Your task to perform on an android device: visit the assistant section in the google photos Image 0: 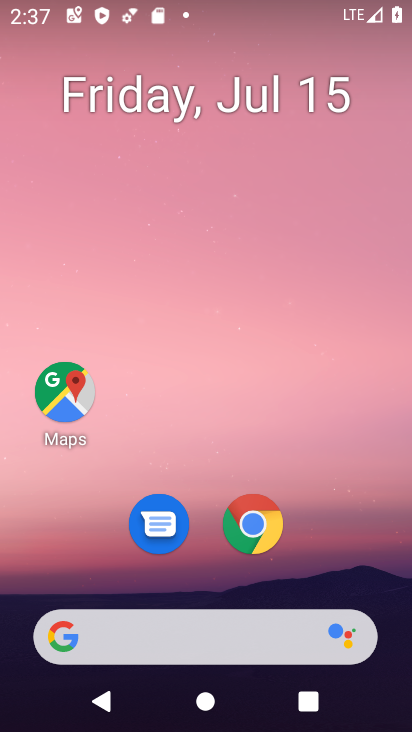
Step 0: drag from (285, 639) to (382, 36)
Your task to perform on an android device: visit the assistant section in the google photos Image 1: 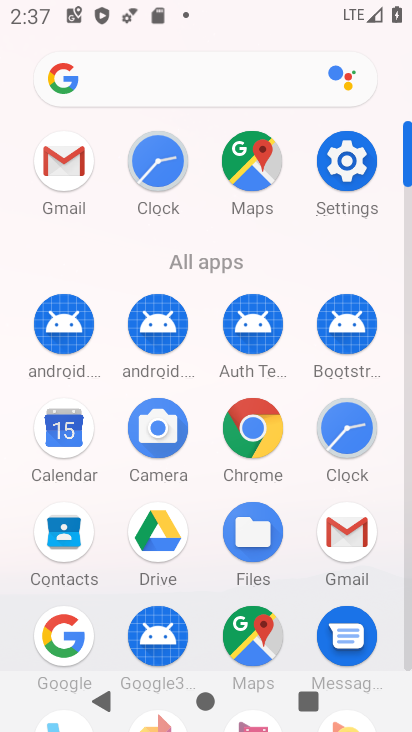
Step 1: drag from (207, 571) to (321, 110)
Your task to perform on an android device: visit the assistant section in the google photos Image 2: 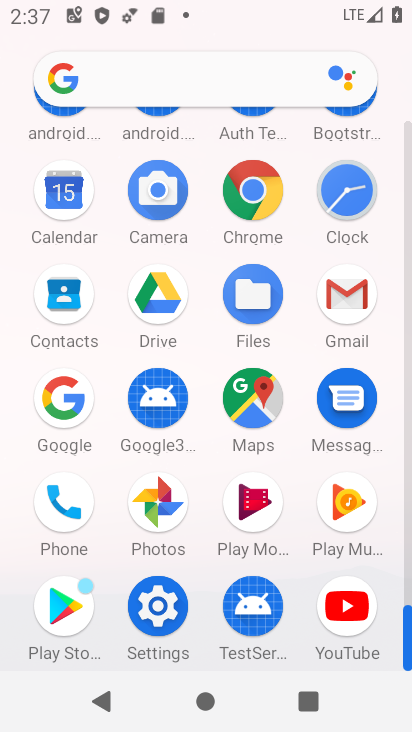
Step 2: click (160, 502)
Your task to perform on an android device: visit the assistant section in the google photos Image 3: 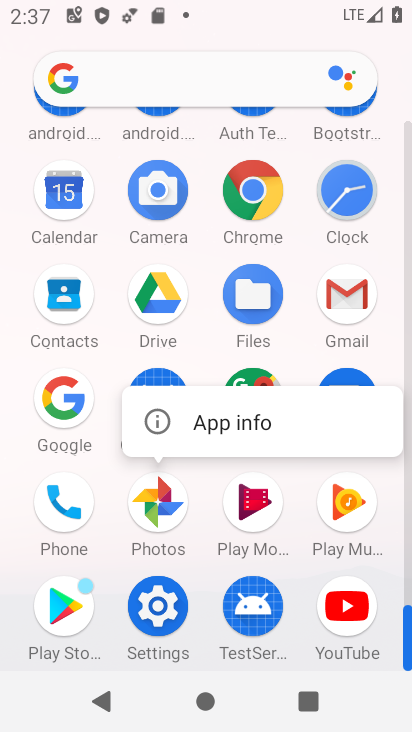
Step 3: click (158, 506)
Your task to perform on an android device: visit the assistant section in the google photos Image 4: 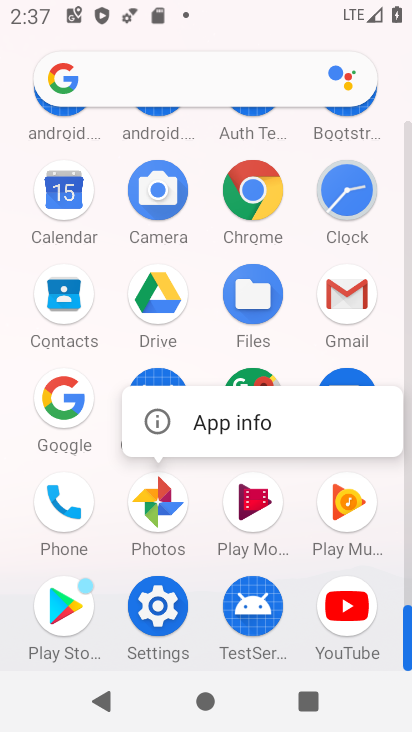
Step 4: click (158, 506)
Your task to perform on an android device: visit the assistant section in the google photos Image 5: 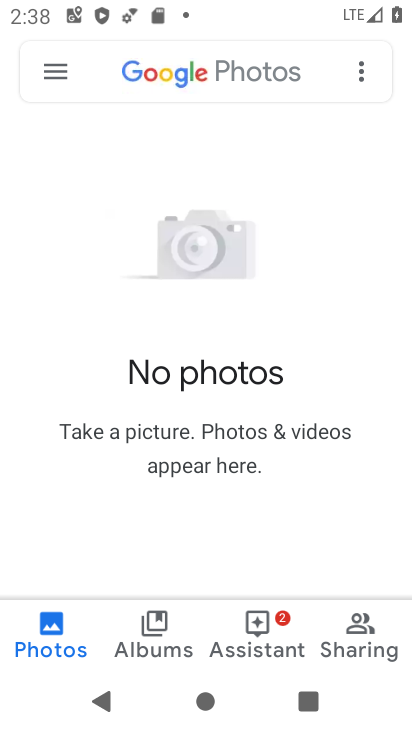
Step 5: click (264, 651)
Your task to perform on an android device: visit the assistant section in the google photos Image 6: 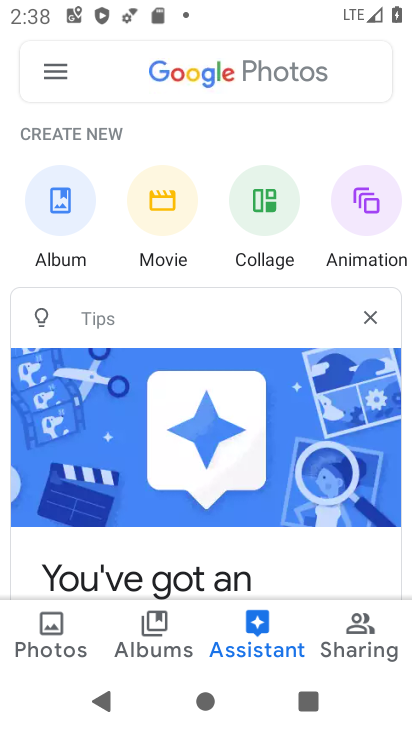
Step 6: task complete